Your task to perform on an android device: toggle show notifications on the lock screen Image 0: 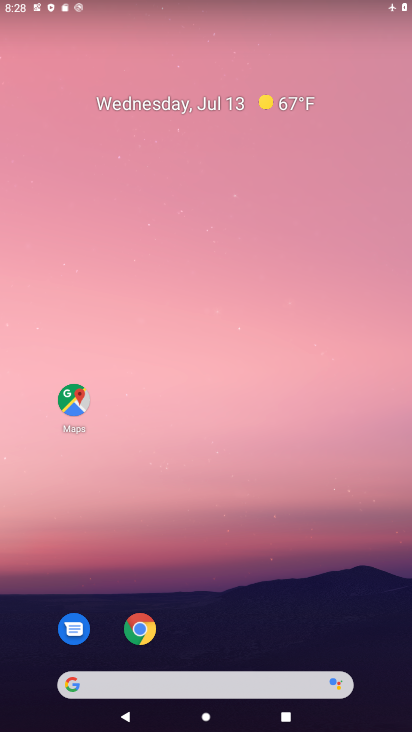
Step 0: drag from (208, 555) to (234, 75)
Your task to perform on an android device: toggle show notifications on the lock screen Image 1: 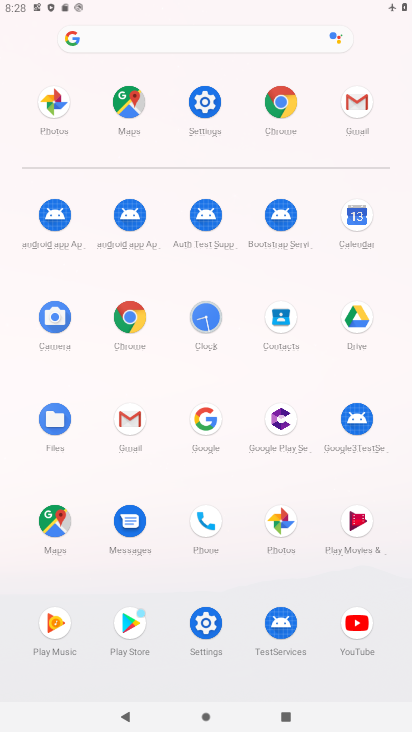
Step 1: click (207, 631)
Your task to perform on an android device: toggle show notifications on the lock screen Image 2: 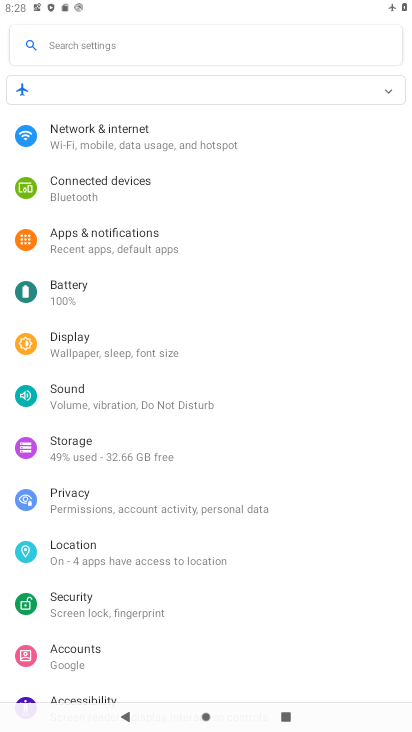
Step 2: click (149, 241)
Your task to perform on an android device: toggle show notifications on the lock screen Image 3: 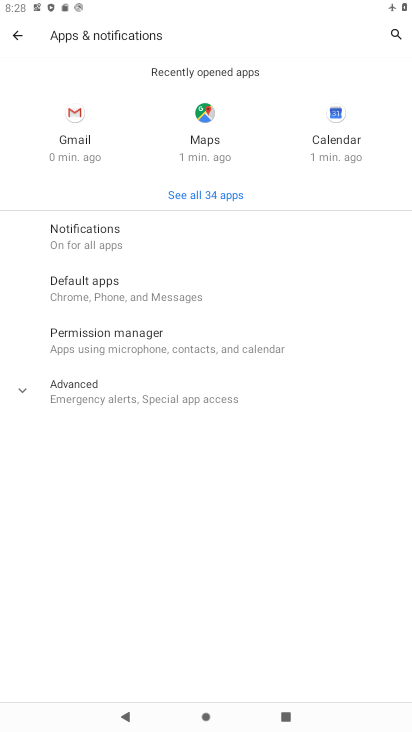
Step 3: click (99, 235)
Your task to perform on an android device: toggle show notifications on the lock screen Image 4: 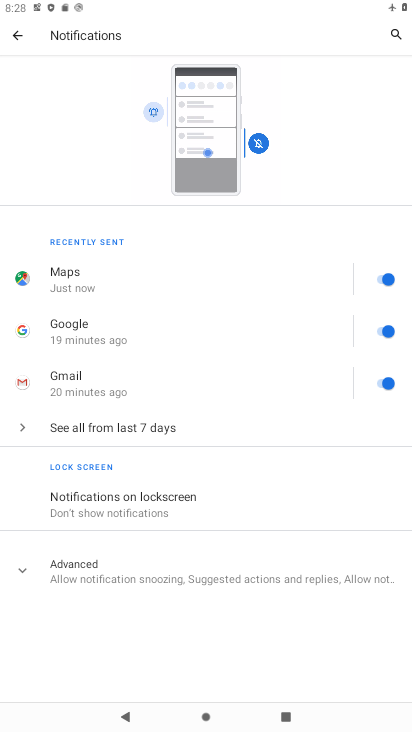
Step 4: click (138, 515)
Your task to perform on an android device: toggle show notifications on the lock screen Image 5: 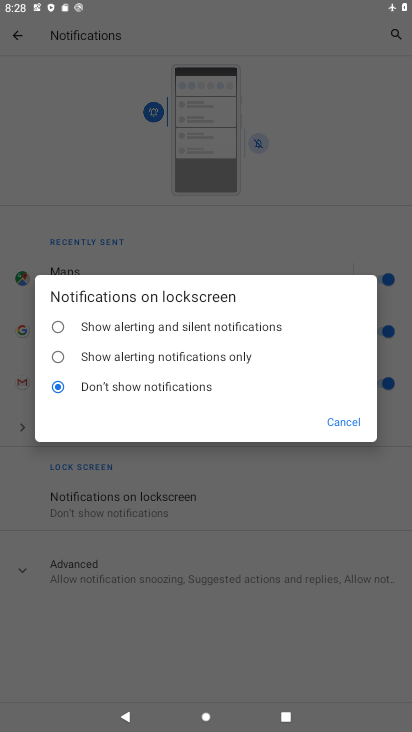
Step 5: click (138, 330)
Your task to perform on an android device: toggle show notifications on the lock screen Image 6: 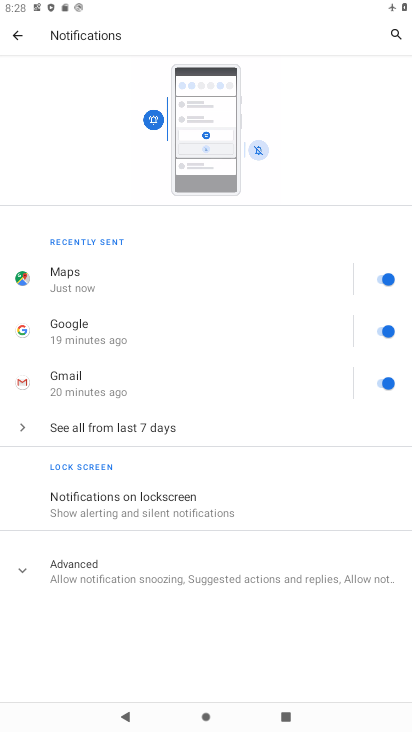
Step 6: task complete